Your task to perform on an android device: Go to internet settings Image 0: 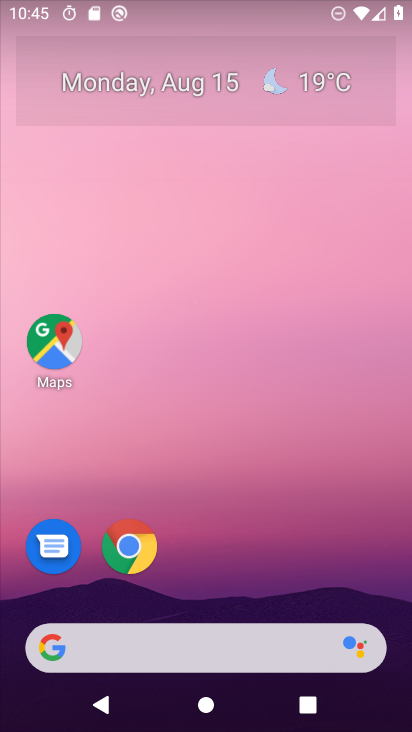
Step 0: drag from (217, 564) to (220, 82)
Your task to perform on an android device: Go to internet settings Image 1: 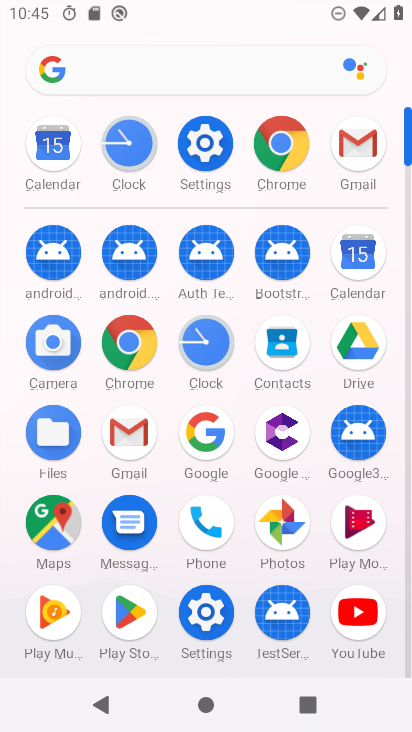
Step 1: click (212, 148)
Your task to perform on an android device: Go to internet settings Image 2: 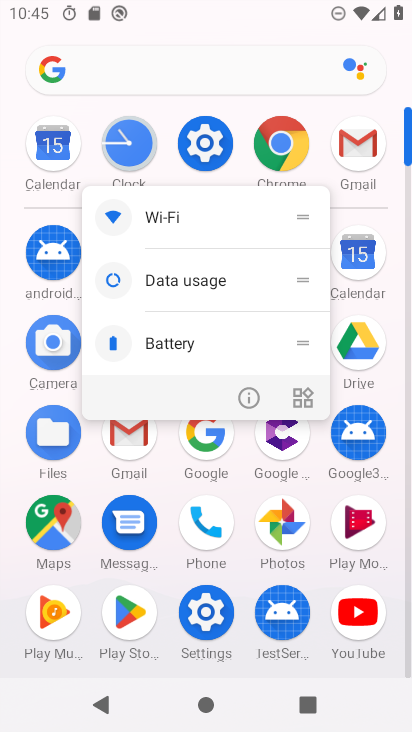
Step 2: click (210, 145)
Your task to perform on an android device: Go to internet settings Image 3: 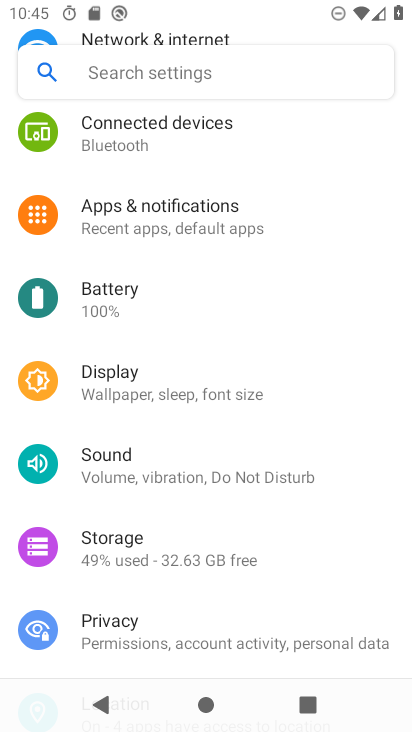
Step 3: drag from (186, 166) to (206, 525)
Your task to perform on an android device: Go to internet settings Image 4: 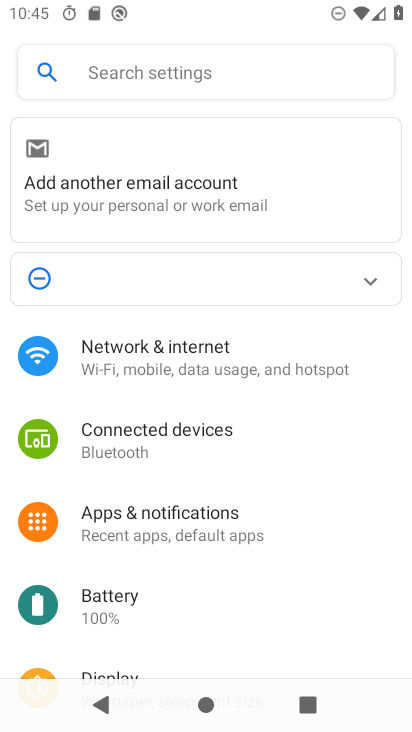
Step 4: click (160, 360)
Your task to perform on an android device: Go to internet settings Image 5: 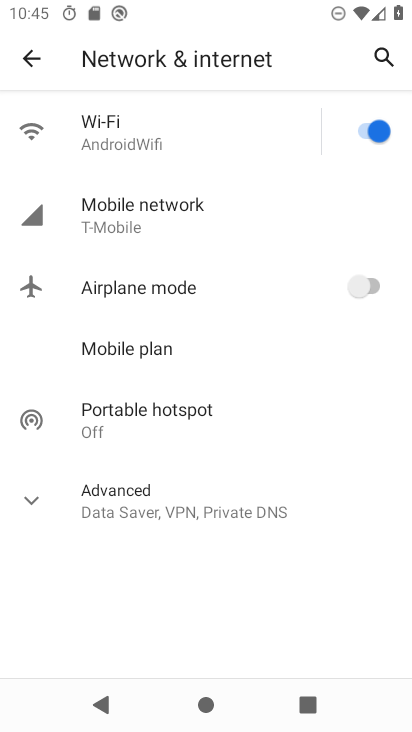
Step 5: task complete